Your task to perform on an android device: visit the assistant section in the google photos Image 0: 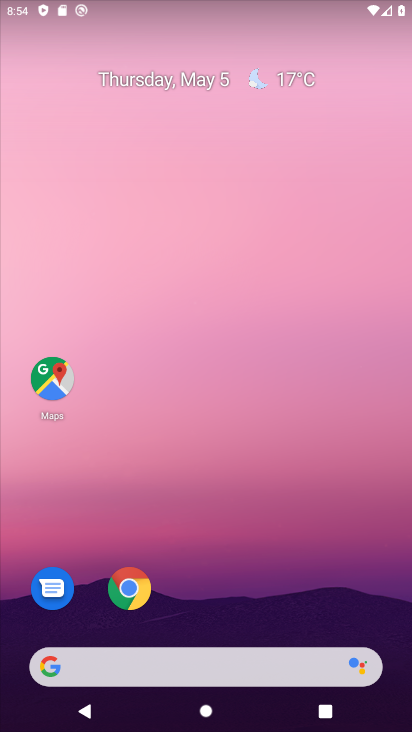
Step 0: drag from (260, 591) to (268, 173)
Your task to perform on an android device: visit the assistant section in the google photos Image 1: 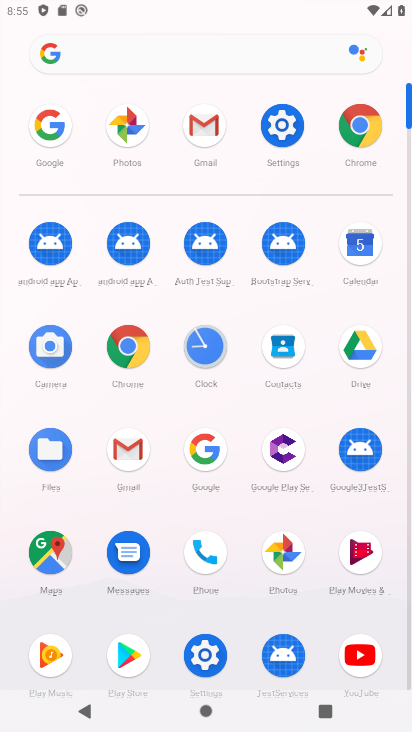
Step 1: click (278, 548)
Your task to perform on an android device: visit the assistant section in the google photos Image 2: 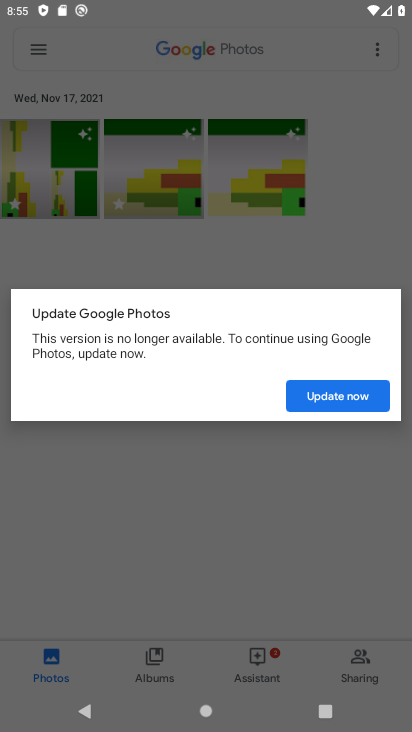
Step 2: click (319, 402)
Your task to perform on an android device: visit the assistant section in the google photos Image 3: 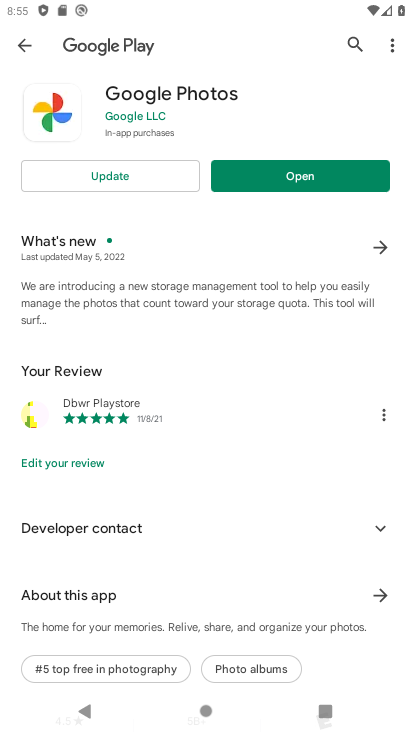
Step 3: press back button
Your task to perform on an android device: visit the assistant section in the google photos Image 4: 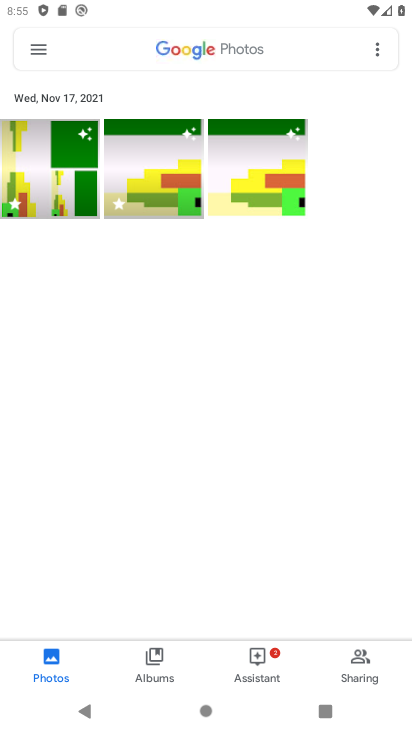
Step 4: click (260, 653)
Your task to perform on an android device: visit the assistant section in the google photos Image 5: 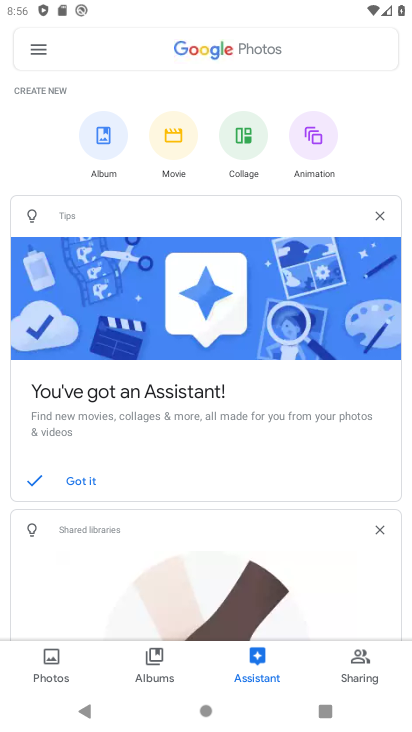
Step 5: task complete